Your task to perform on an android device: Go to Reddit.com Image 0: 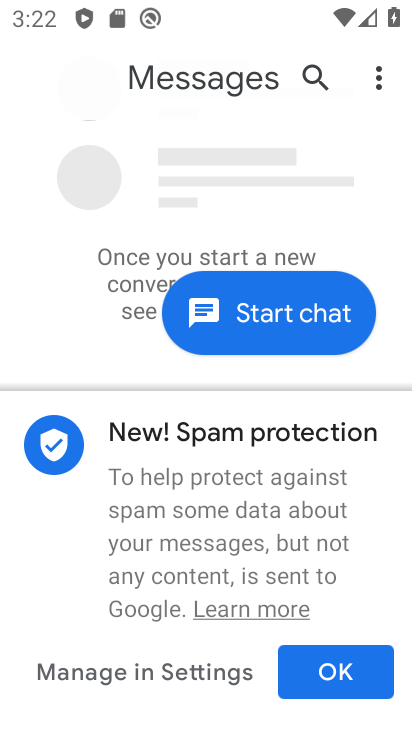
Step 0: press back button
Your task to perform on an android device: Go to Reddit.com Image 1: 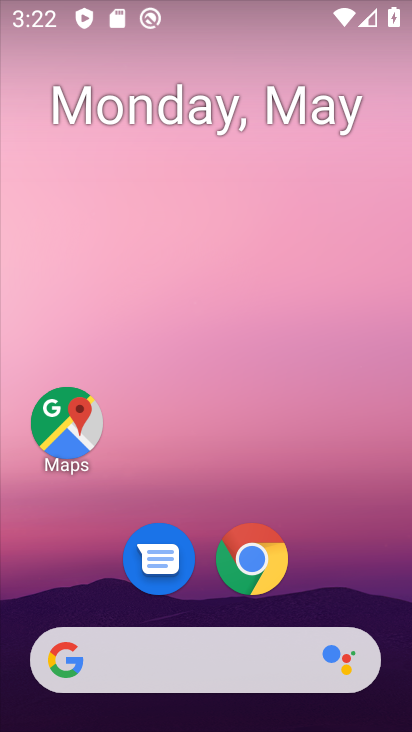
Step 1: drag from (314, 683) to (219, 211)
Your task to perform on an android device: Go to Reddit.com Image 2: 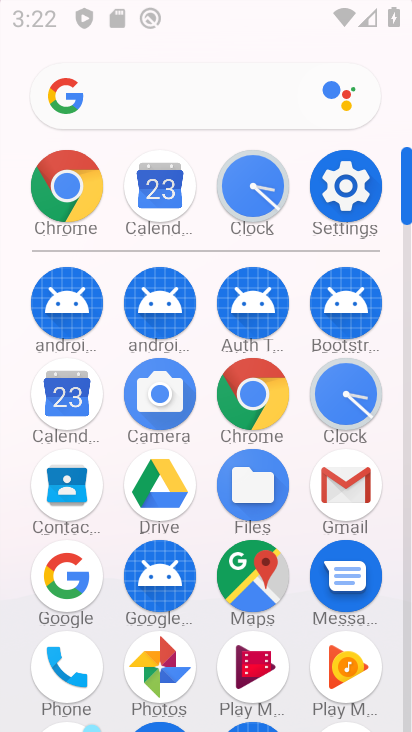
Step 2: click (316, 316)
Your task to perform on an android device: Go to Reddit.com Image 3: 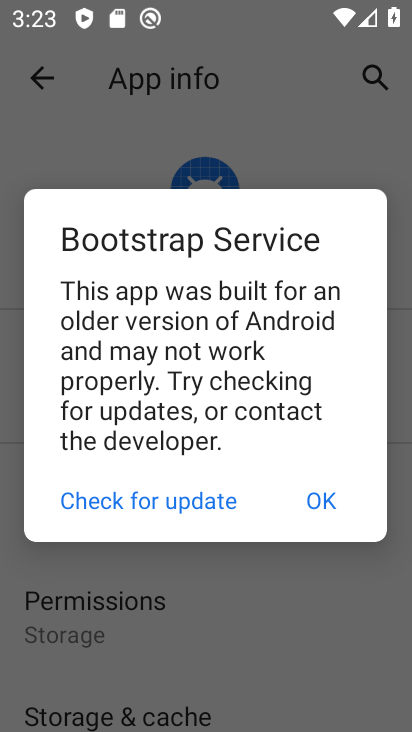
Step 3: click (312, 499)
Your task to perform on an android device: Go to Reddit.com Image 4: 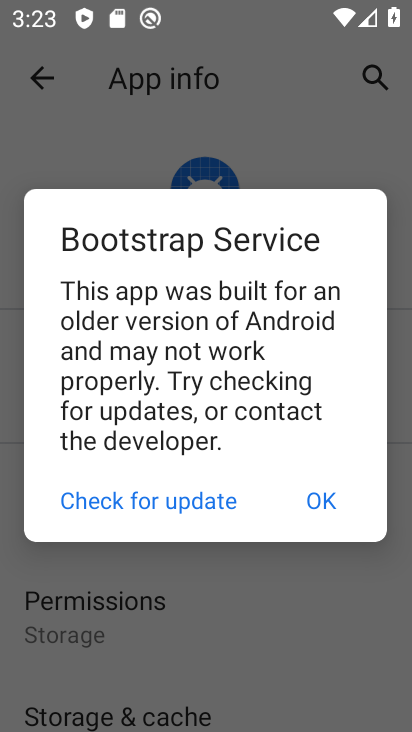
Step 4: click (313, 501)
Your task to perform on an android device: Go to Reddit.com Image 5: 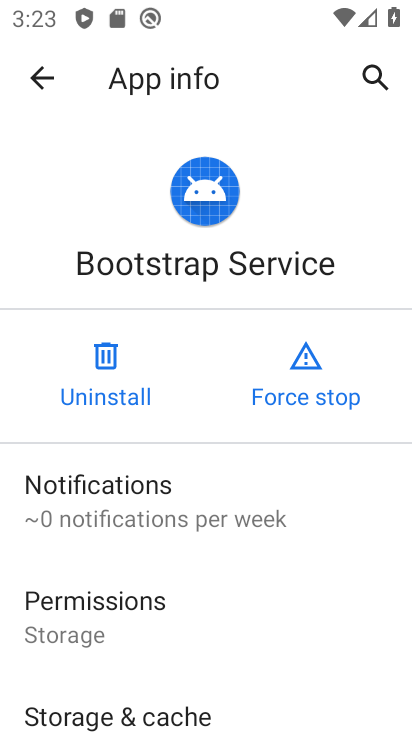
Step 5: click (314, 502)
Your task to perform on an android device: Go to Reddit.com Image 6: 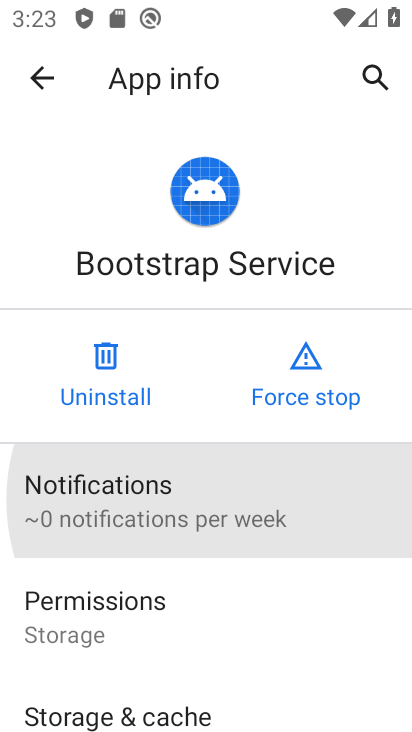
Step 6: click (314, 502)
Your task to perform on an android device: Go to Reddit.com Image 7: 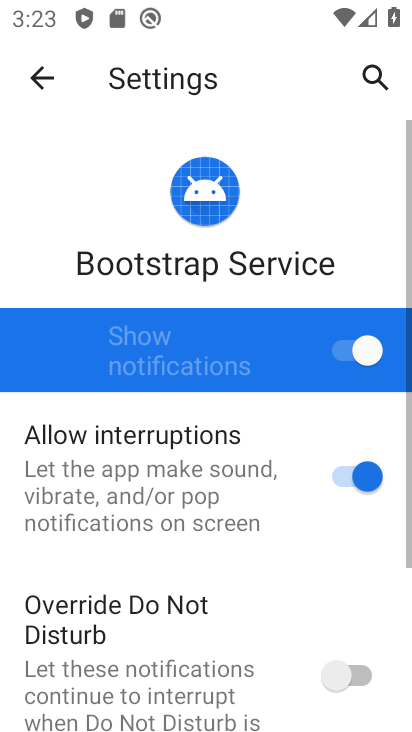
Step 7: click (20, 65)
Your task to perform on an android device: Go to Reddit.com Image 8: 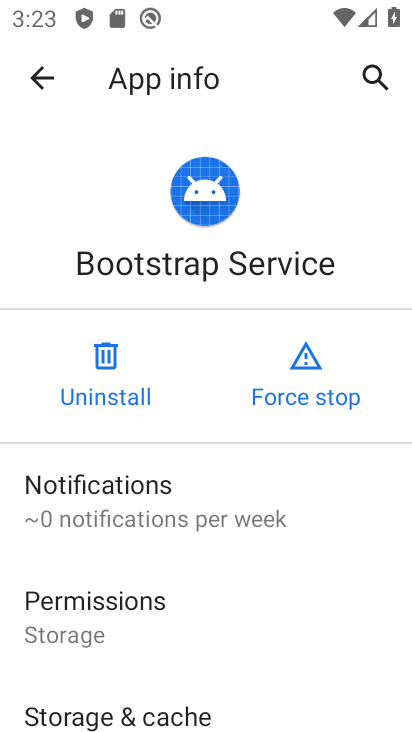
Step 8: click (33, 82)
Your task to perform on an android device: Go to Reddit.com Image 9: 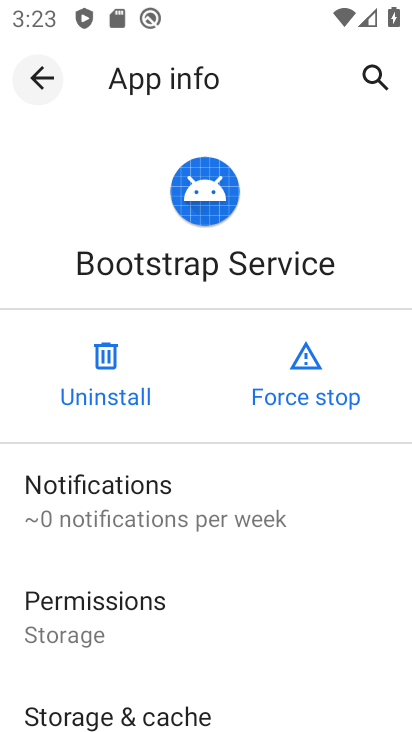
Step 9: click (33, 82)
Your task to perform on an android device: Go to Reddit.com Image 10: 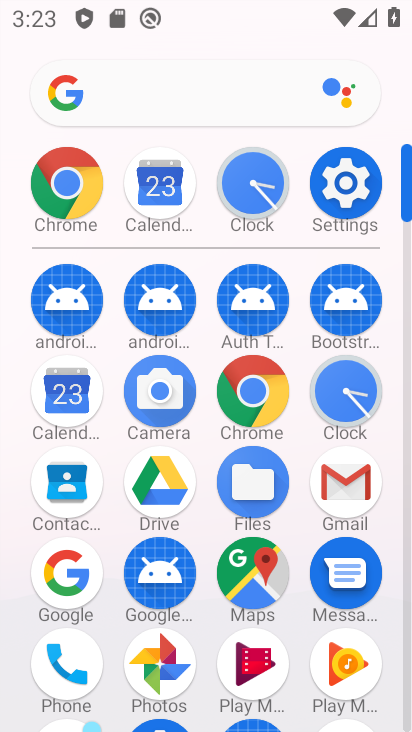
Step 10: click (62, 188)
Your task to perform on an android device: Go to Reddit.com Image 11: 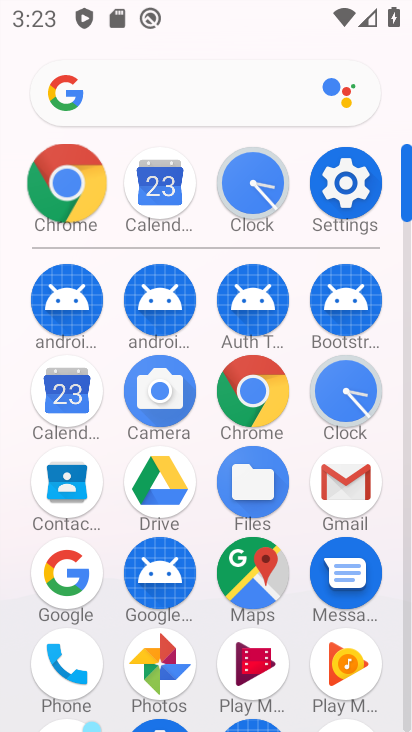
Step 11: click (62, 188)
Your task to perform on an android device: Go to Reddit.com Image 12: 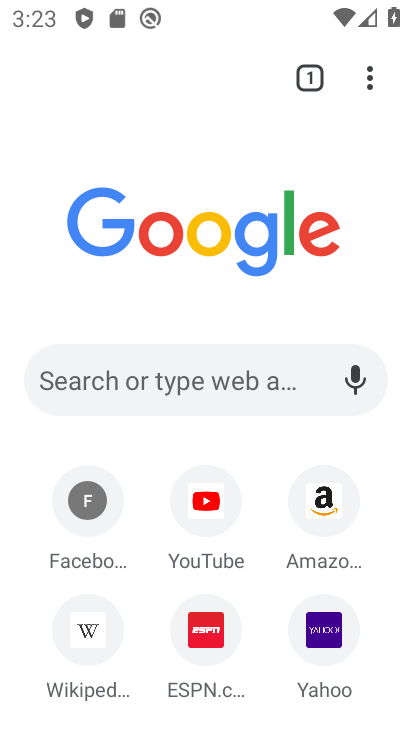
Step 12: click (363, 71)
Your task to perform on an android device: Go to Reddit.com Image 13: 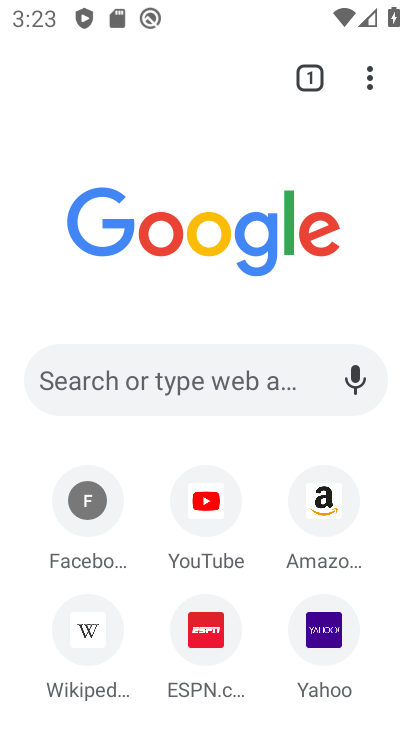
Step 13: click (358, 80)
Your task to perform on an android device: Go to Reddit.com Image 14: 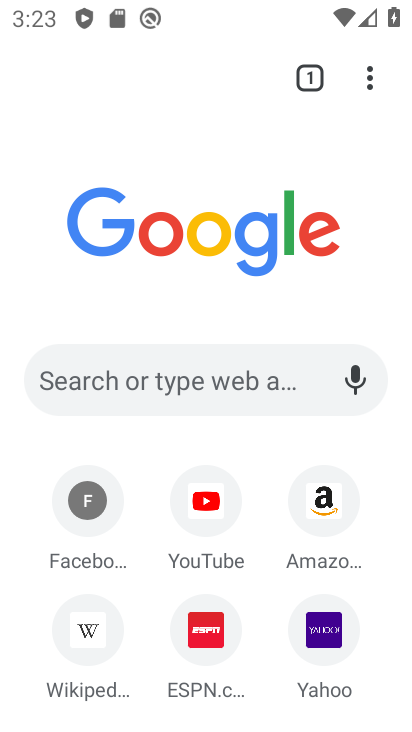
Step 14: click (367, 74)
Your task to perform on an android device: Go to Reddit.com Image 15: 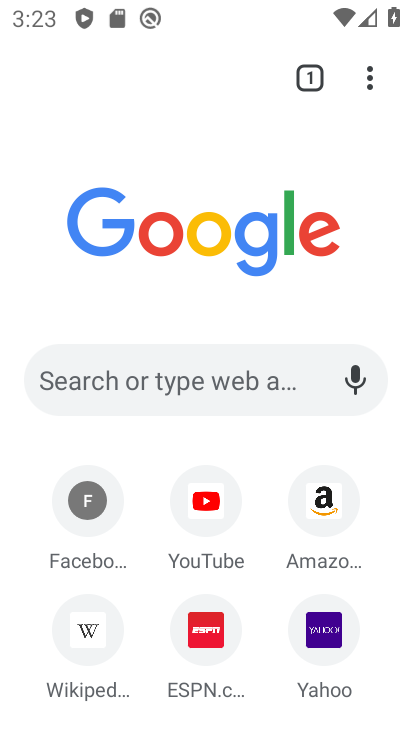
Step 15: click (371, 72)
Your task to perform on an android device: Go to Reddit.com Image 16: 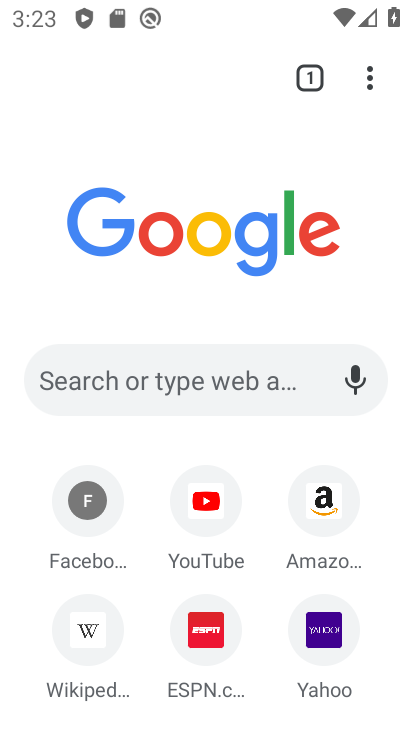
Step 16: click (69, 363)
Your task to perform on an android device: Go to Reddit.com Image 17: 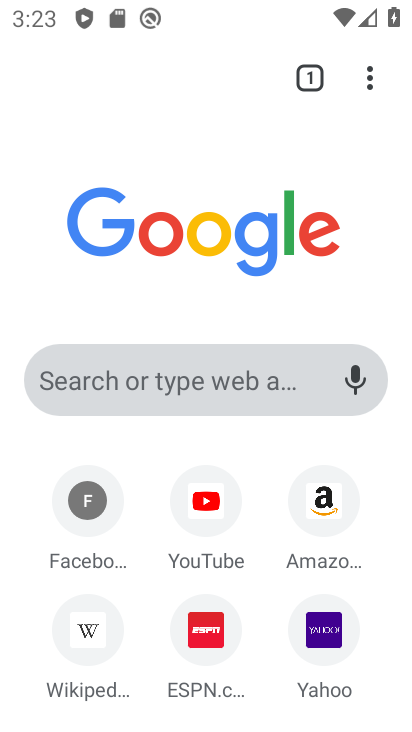
Step 17: click (80, 391)
Your task to perform on an android device: Go to Reddit.com Image 18: 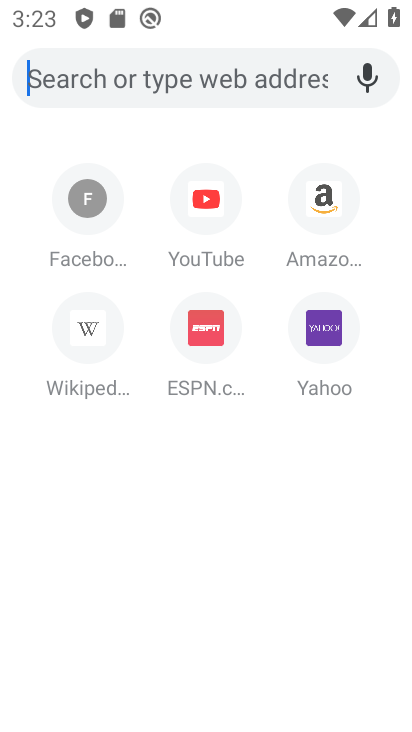
Step 18: click (74, 401)
Your task to perform on an android device: Go to Reddit.com Image 19: 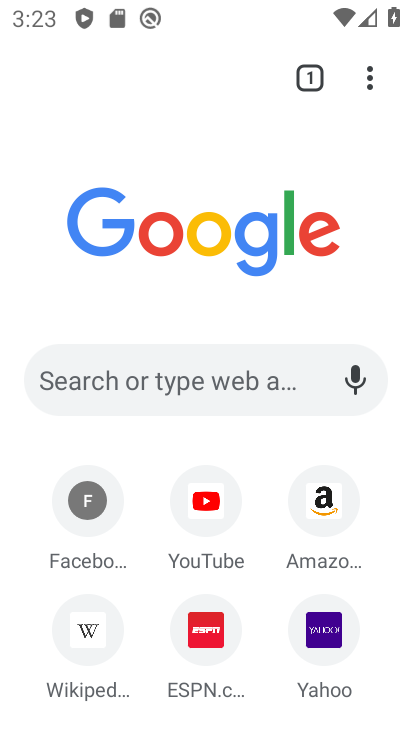
Step 19: click (72, 375)
Your task to perform on an android device: Go to Reddit.com Image 20: 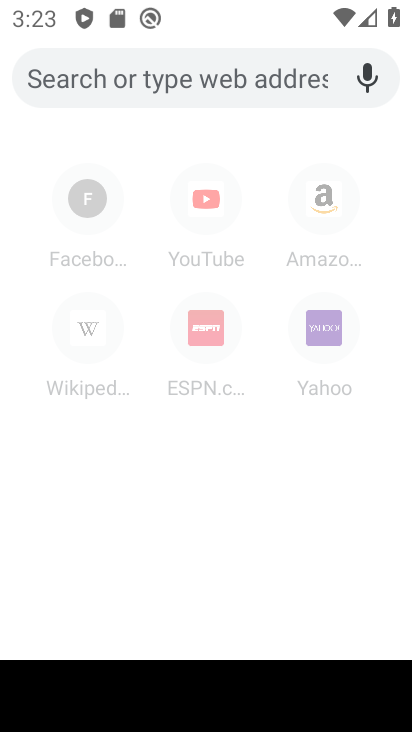
Step 20: type "reddit.com"
Your task to perform on an android device: Go to Reddit.com Image 21: 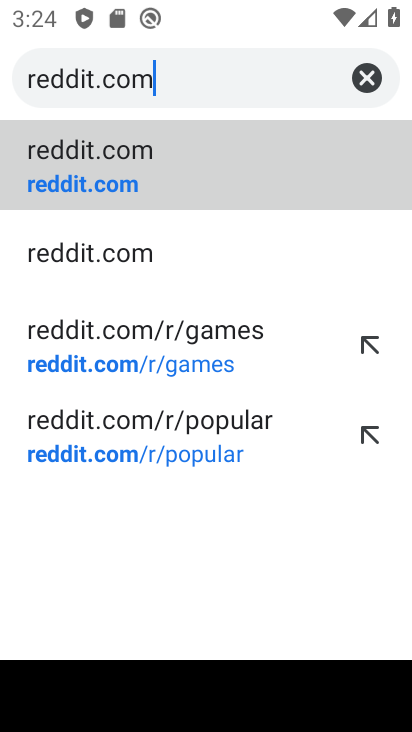
Step 21: click (41, 174)
Your task to perform on an android device: Go to Reddit.com Image 22: 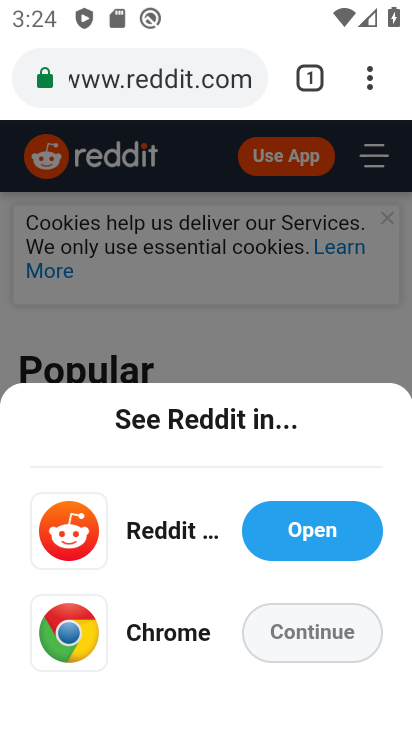
Step 22: task complete